Your task to perform on an android device: turn off notifications in google photos Image 0: 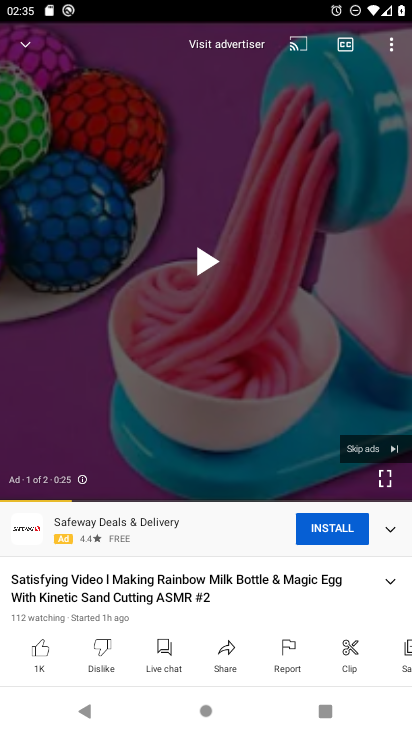
Step 0: press home button
Your task to perform on an android device: turn off notifications in google photos Image 1: 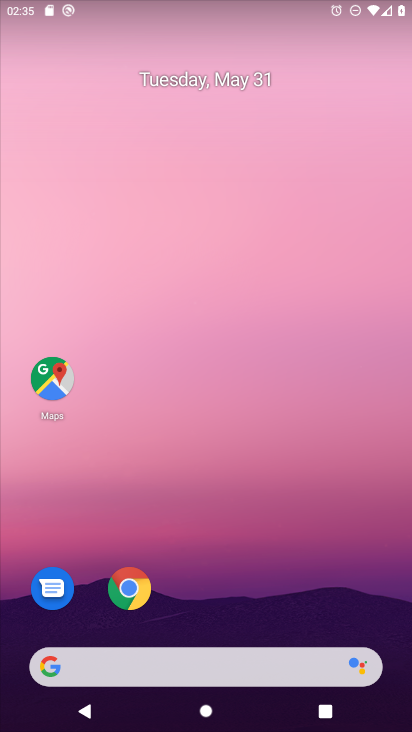
Step 1: drag from (340, 670) to (398, 17)
Your task to perform on an android device: turn off notifications in google photos Image 2: 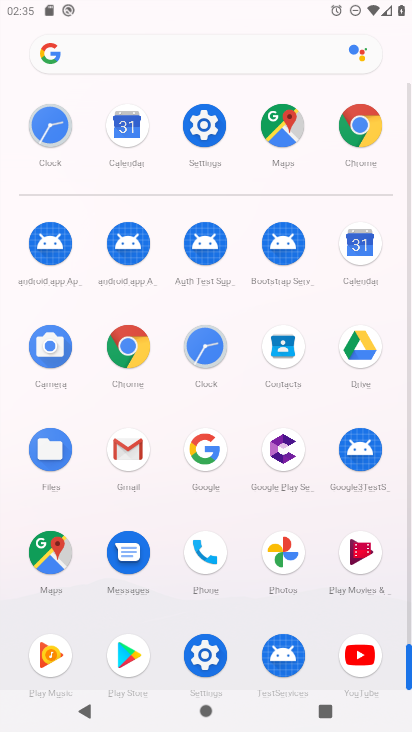
Step 2: click (288, 552)
Your task to perform on an android device: turn off notifications in google photos Image 3: 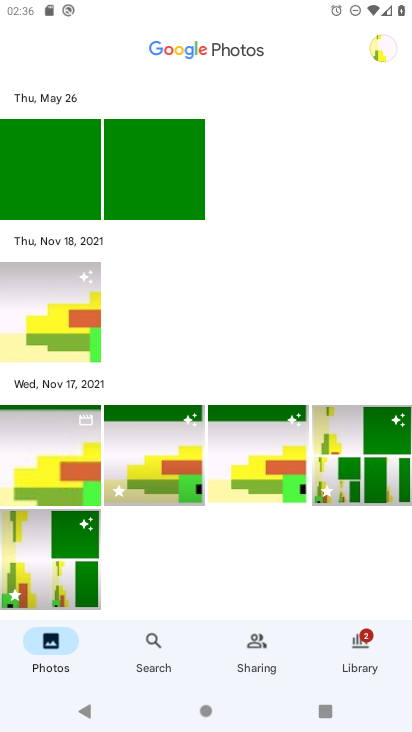
Step 3: click (387, 44)
Your task to perform on an android device: turn off notifications in google photos Image 4: 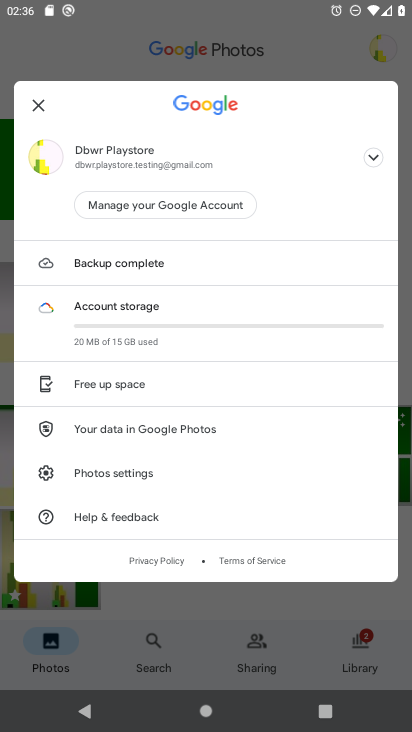
Step 4: press back button
Your task to perform on an android device: turn off notifications in google photos Image 5: 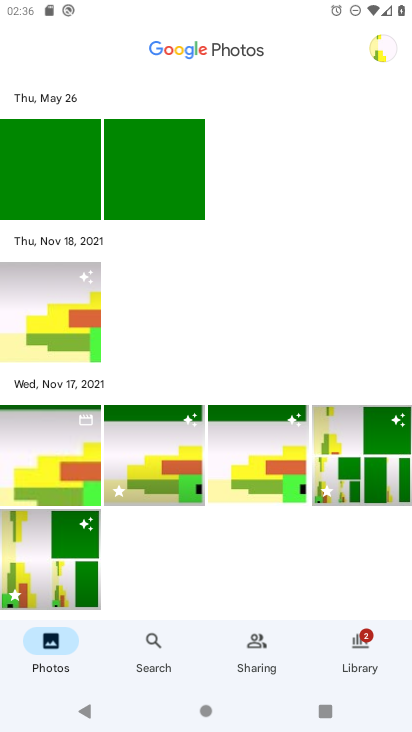
Step 5: click (390, 55)
Your task to perform on an android device: turn off notifications in google photos Image 6: 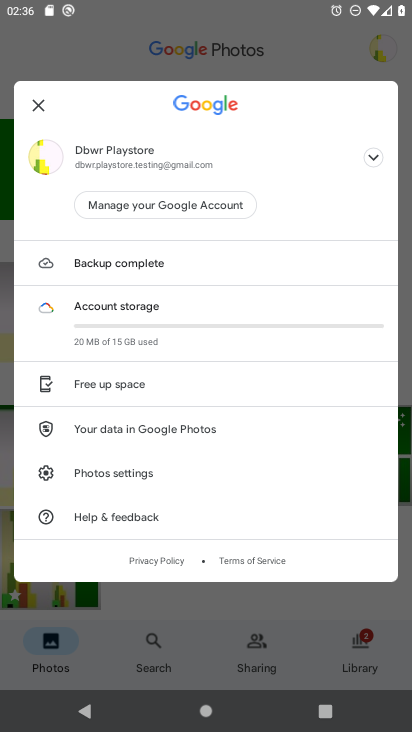
Step 6: click (164, 477)
Your task to perform on an android device: turn off notifications in google photos Image 7: 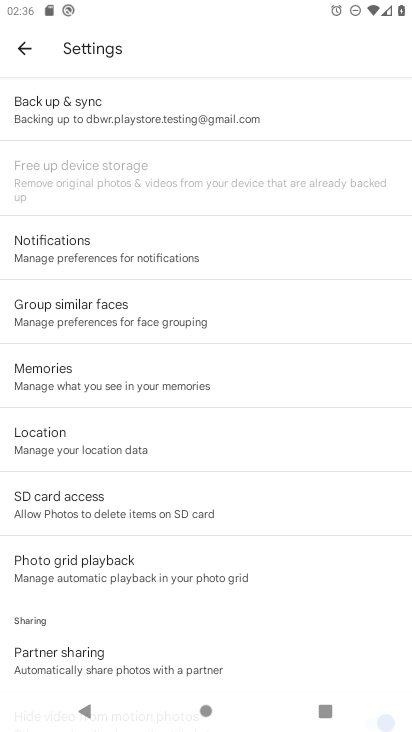
Step 7: click (239, 235)
Your task to perform on an android device: turn off notifications in google photos Image 8: 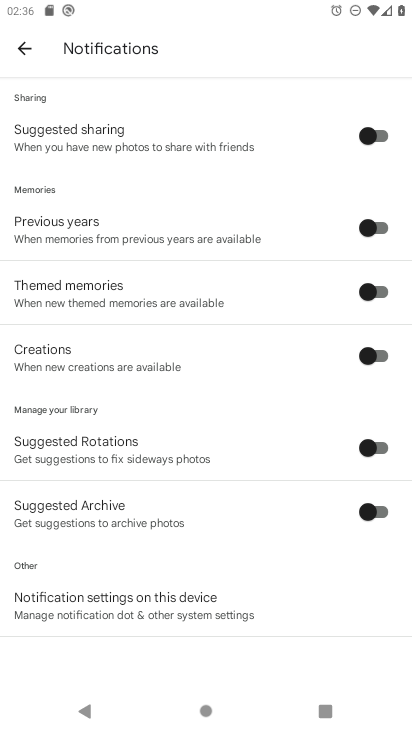
Step 8: click (245, 626)
Your task to perform on an android device: turn off notifications in google photos Image 9: 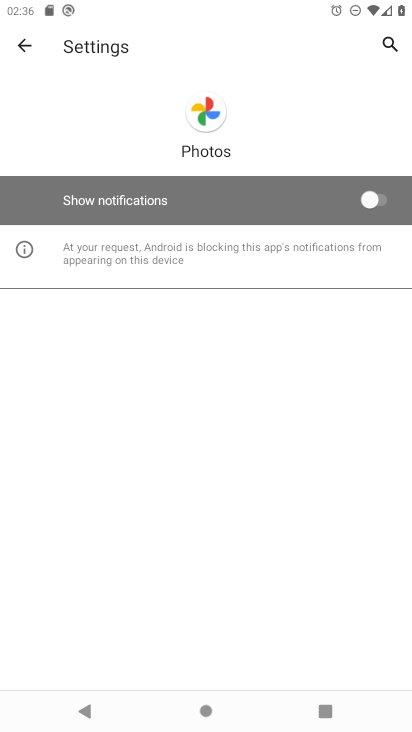
Step 9: task complete